Your task to perform on an android device: Search for Italian restaurants on Maps Image 0: 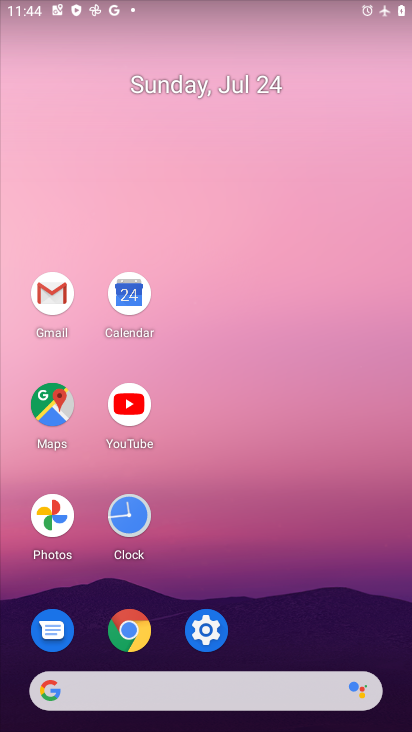
Step 0: click (44, 407)
Your task to perform on an android device: Search for Italian restaurants on Maps Image 1: 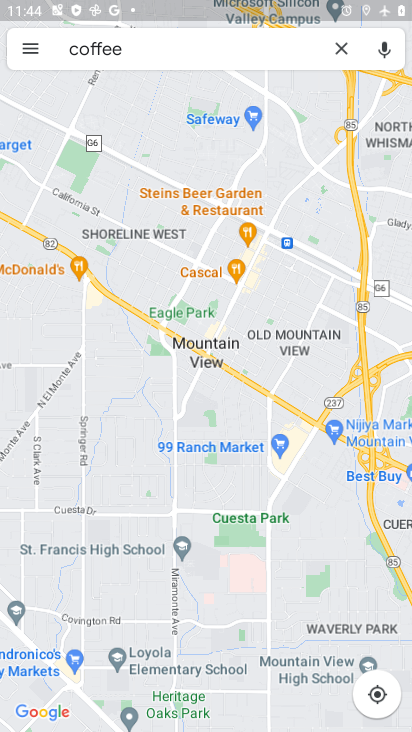
Step 1: click (338, 42)
Your task to perform on an android device: Search for Italian restaurants on Maps Image 2: 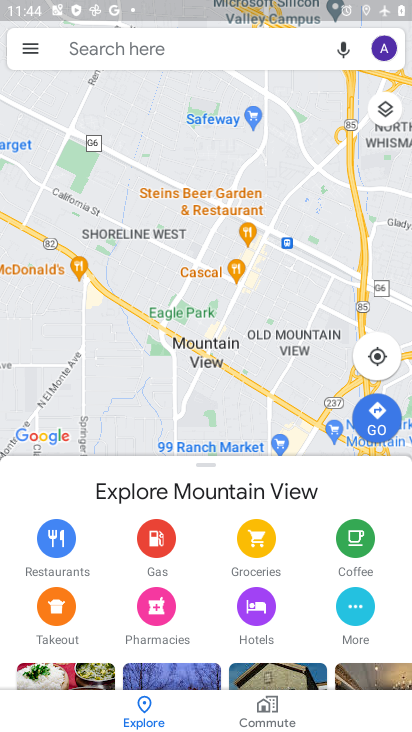
Step 2: click (126, 44)
Your task to perform on an android device: Search for Italian restaurants on Maps Image 3: 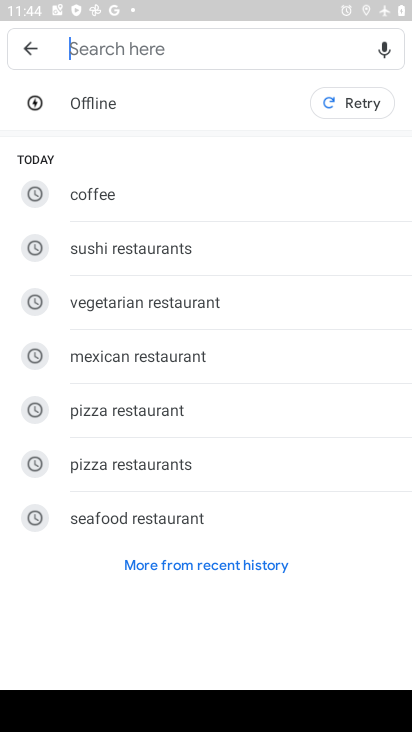
Step 3: type "italian restaurants"
Your task to perform on an android device: Search for Italian restaurants on Maps Image 4: 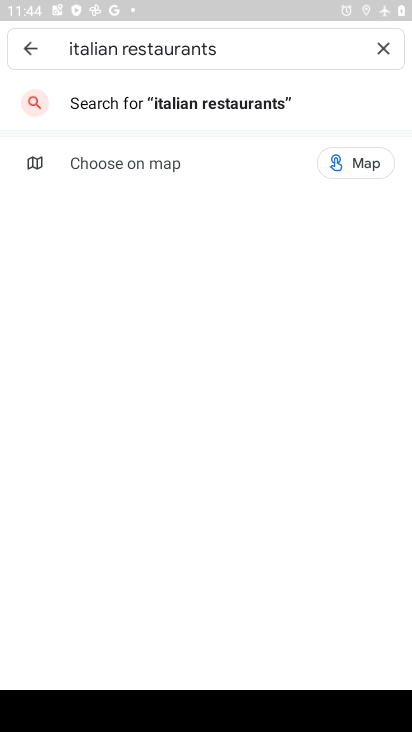
Step 4: click (229, 101)
Your task to perform on an android device: Search for Italian restaurants on Maps Image 5: 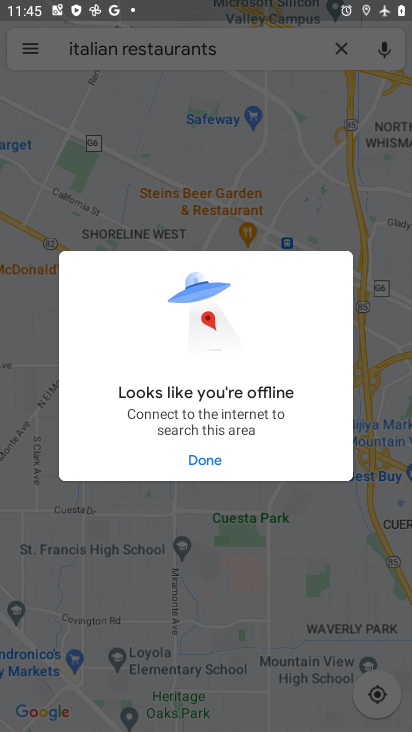
Step 5: task complete